Your task to perform on an android device: find which apps use the phone's location Image 0: 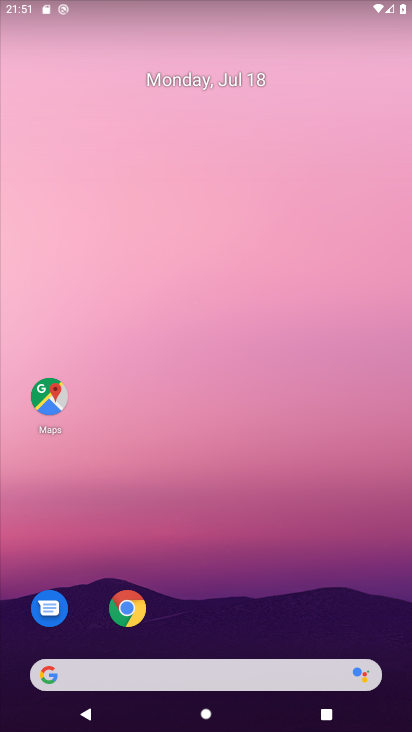
Step 0: drag from (238, 634) to (228, 176)
Your task to perform on an android device: find which apps use the phone's location Image 1: 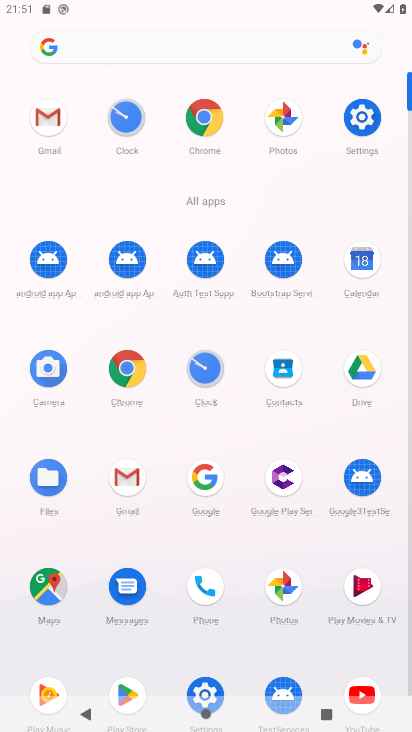
Step 1: click (204, 684)
Your task to perform on an android device: find which apps use the phone's location Image 2: 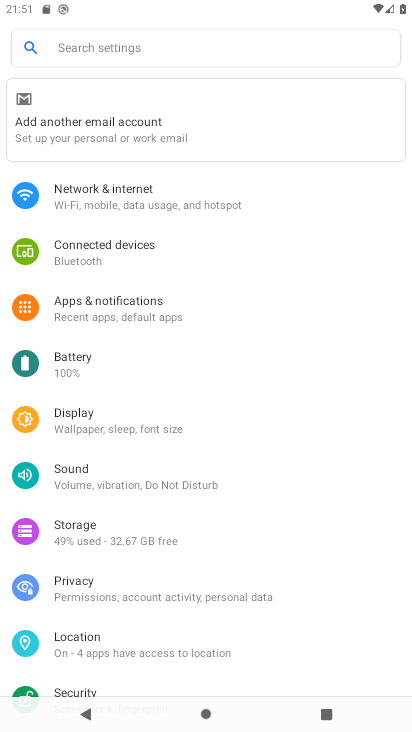
Step 2: click (109, 642)
Your task to perform on an android device: find which apps use the phone's location Image 3: 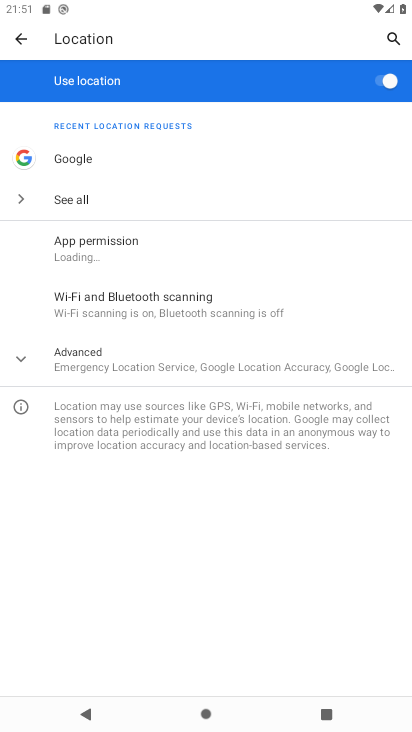
Step 3: click (117, 246)
Your task to perform on an android device: find which apps use the phone's location Image 4: 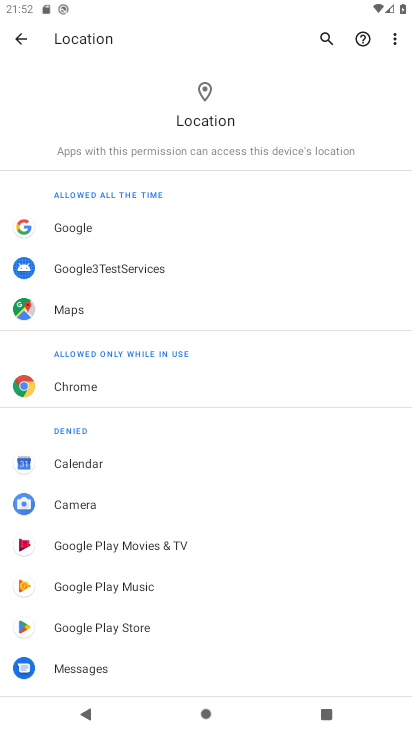
Step 4: task complete